Your task to perform on an android device: turn off sleep mode Image 0: 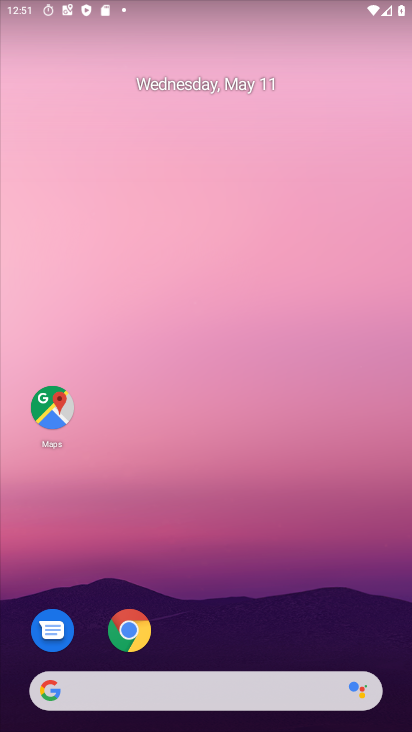
Step 0: drag from (280, 420) to (323, 93)
Your task to perform on an android device: turn off sleep mode Image 1: 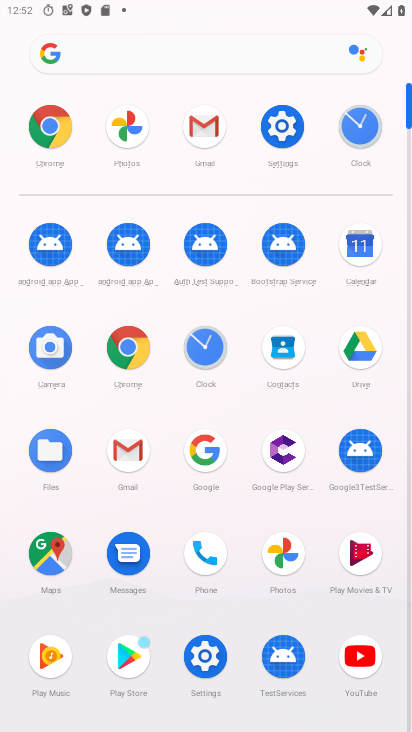
Step 1: click (287, 124)
Your task to perform on an android device: turn off sleep mode Image 2: 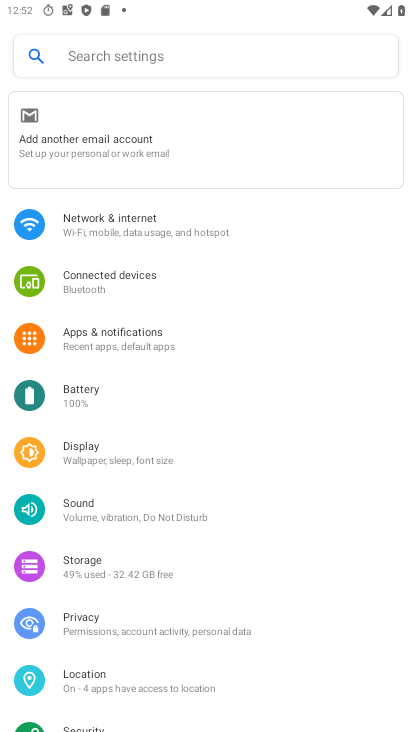
Step 2: click (90, 455)
Your task to perform on an android device: turn off sleep mode Image 3: 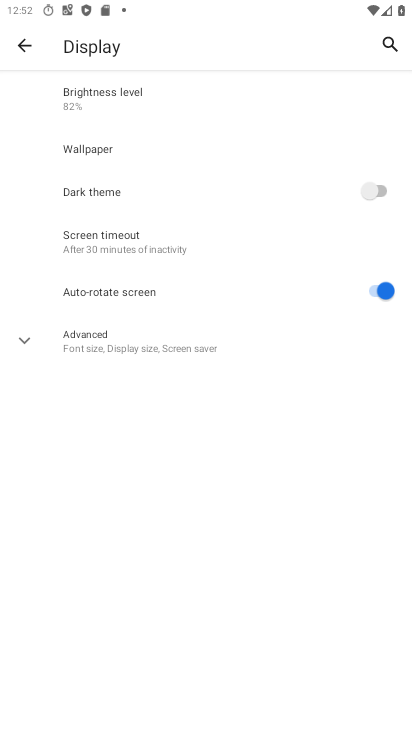
Step 3: click (137, 249)
Your task to perform on an android device: turn off sleep mode Image 4: 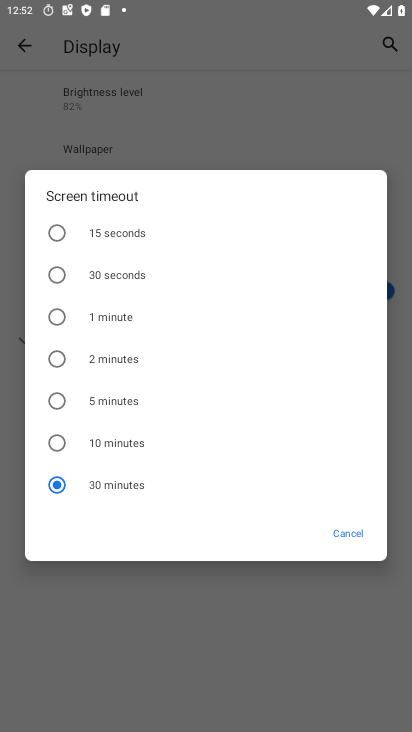
Step 4: task complete